Your task to perform on an android device: turn vacation reply on in the gmail app Image 0: 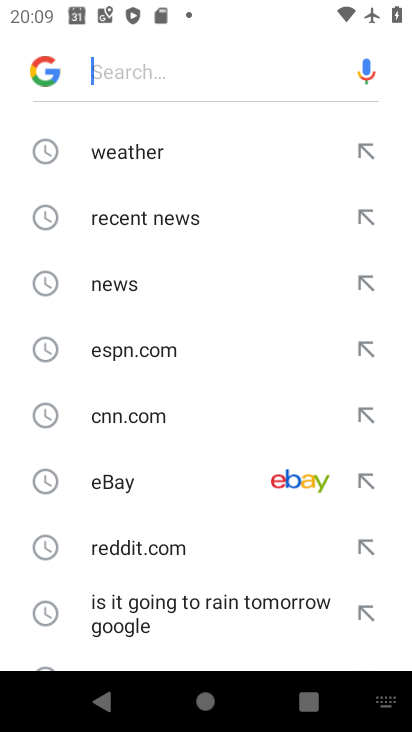
Step 0: press home button
Your task to perform on an android device: turn vacation reply on in the gmail app Image 1: 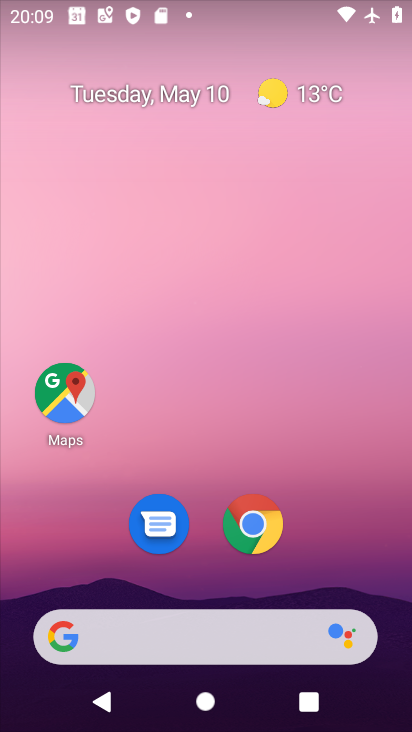
Step 1: drag from (351, 530) to (302, 0)
Your task to perform on an android device: turn vacation reply on in the gmail app Image 2: 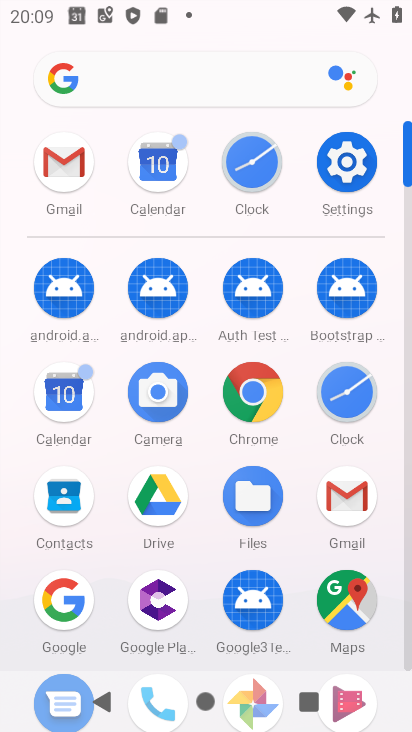
Step 2: click (67, 153)
Your task to perform on an android device: turn vacation reply on in the gmail app Image 3: 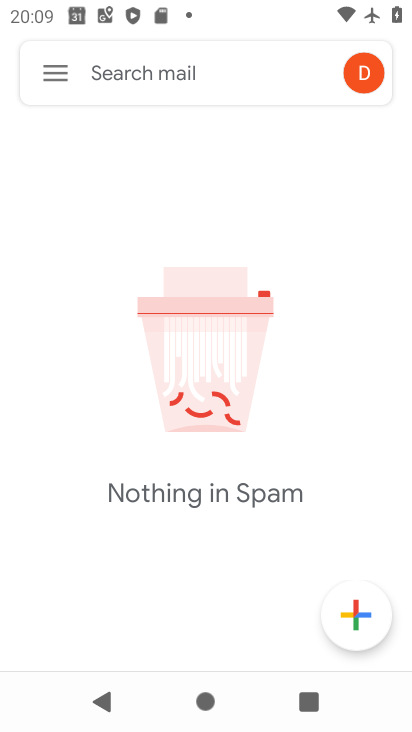
Step 3: click (63, 72)
Your task to perform on an android device: turn vacation reply on in the gmail app Image 4: 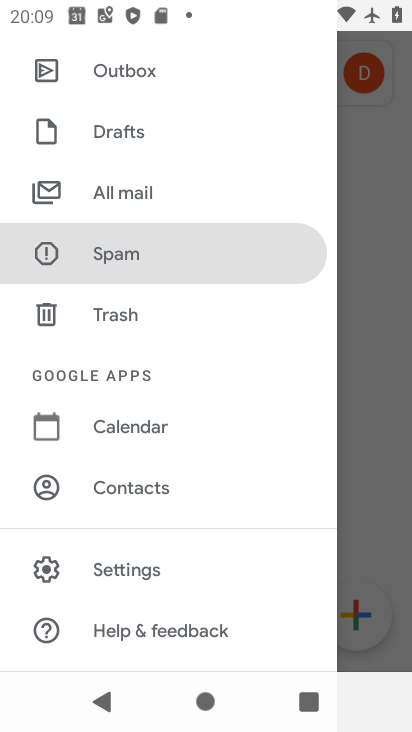
Step 4: click (179, 573)
Your task to perform on an android device: turn vacation reply on in the gmail app Image 5: 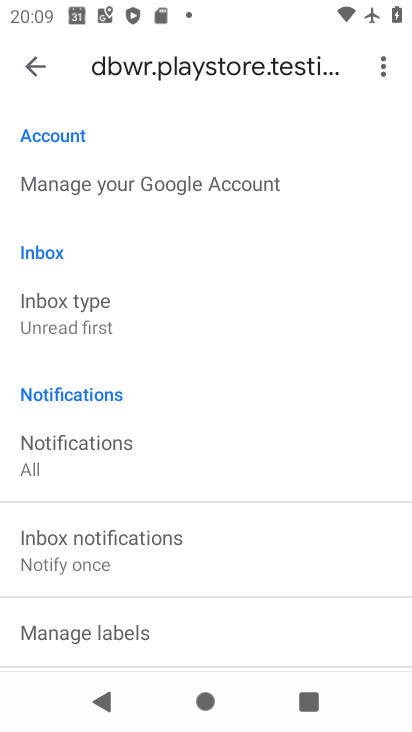
Step 5: drag from (255, 436) to (254, 64)
Your task to perform on an android device: turn vacation reply on in the gmail app Image 6: 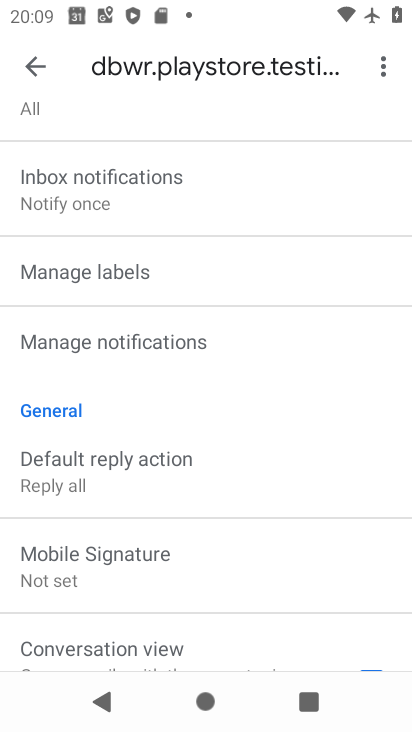
Step 6: drag from (282, 501) to (294, 185)
Your task to perform on an android device: turn vacation reply on in the gmail app Image 7: 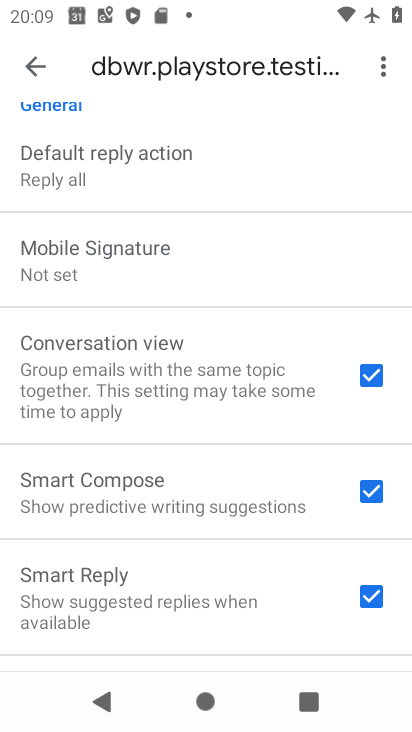
Step 7: drag from (248, 487) to (265, 164)
Your task to perform on an android device: turn vacation reply on in the gmail app Image 8: 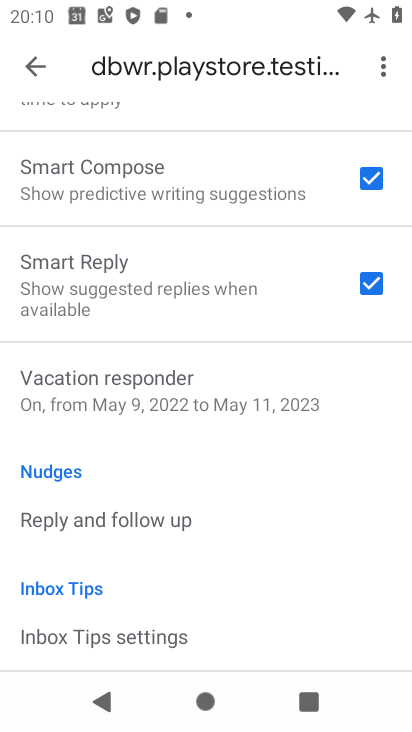
Step 8: click (195, 388)
Your task to perform on an android device: turn vacation reply on in the gmail app Image 9: 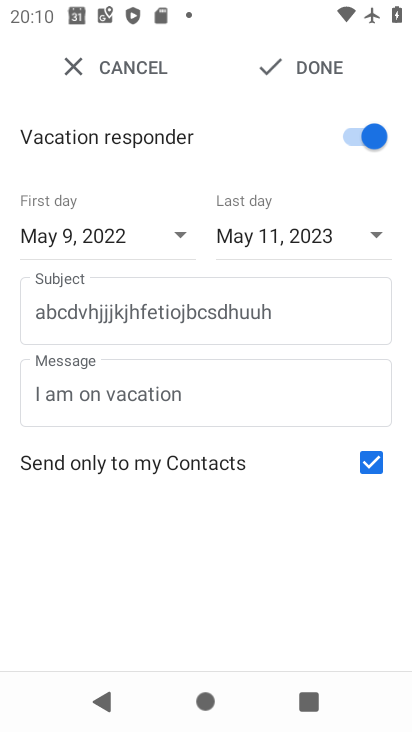
Step 9: task complete